Your task to perform on an android device: Toggle the flashlight Image 0: 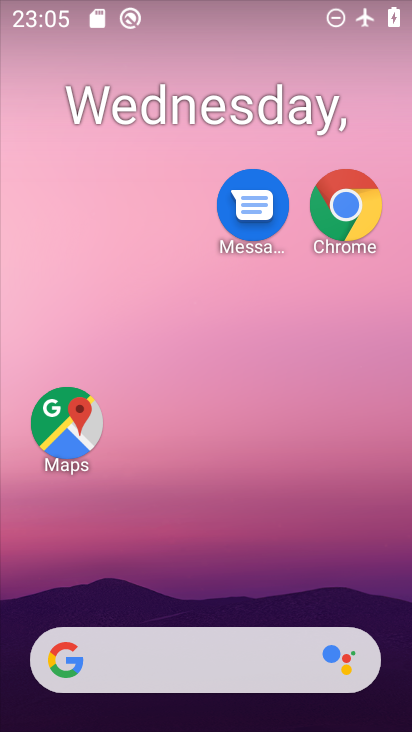
Step 0: drag from (196, 551) to (227, 29)
Your task to perform on an android device: Toggle the flashlight Image 1: 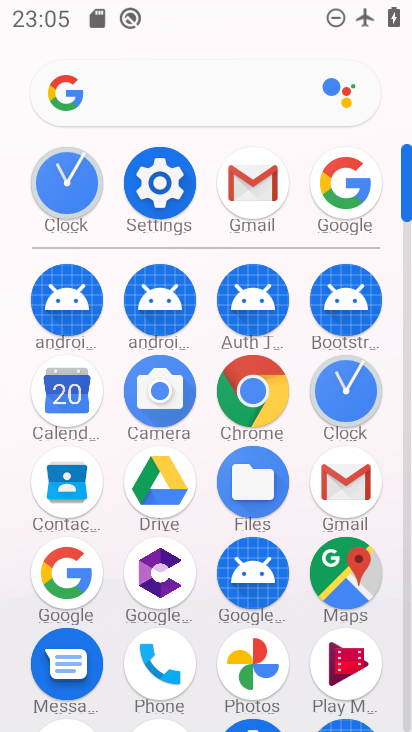
Step 1: click (140, 165)
Your task to perform on an android device: Toggle the flashlight Image 2: 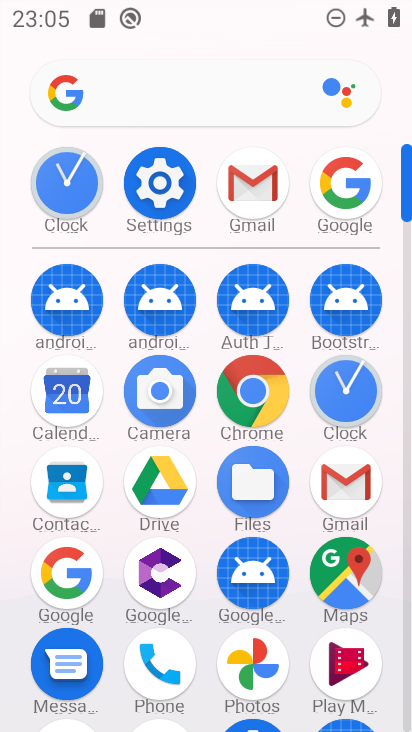
Step 2: click (140, 165)
Your task to perform on an android device: Toggle the flashlight Image 3: 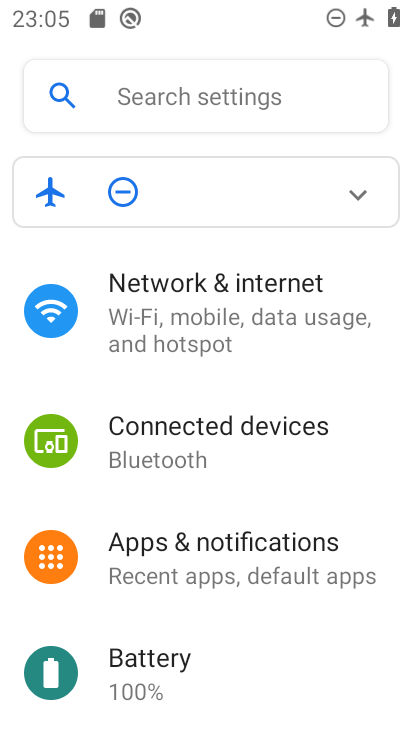
Step 3: click (205, 98)
Your task to perform on an android device: Toggle the flashlight Image 4: 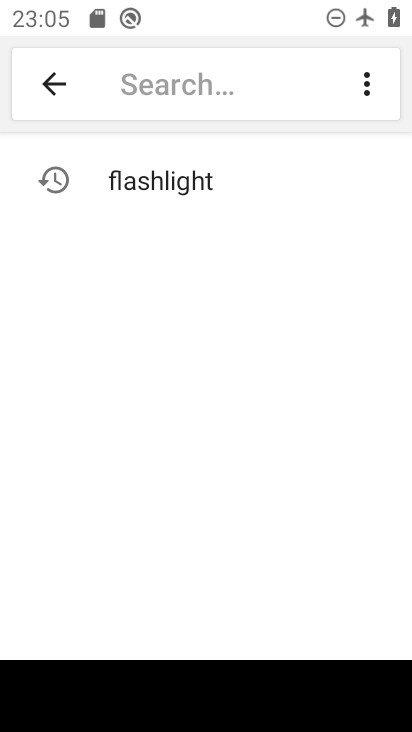
Step 4: type "flashlight"
Your task to perform on an android device: Toggle the flashlight Image 5: 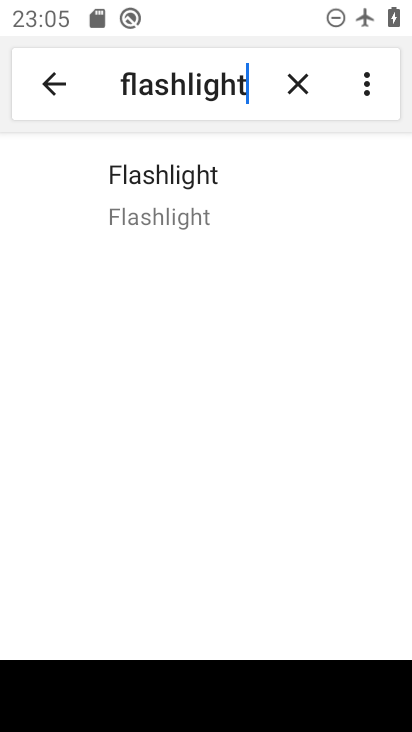
Step 5: click (228, 194)
Your task to perform on an android device: Toggle the flashlight Image 6: 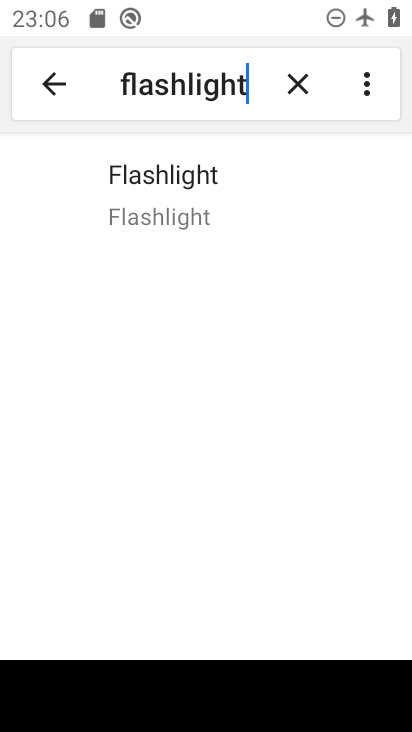
Step 6: click (263, 233)
Your task to perform on an android device: Toggle the flashlight Image 7: 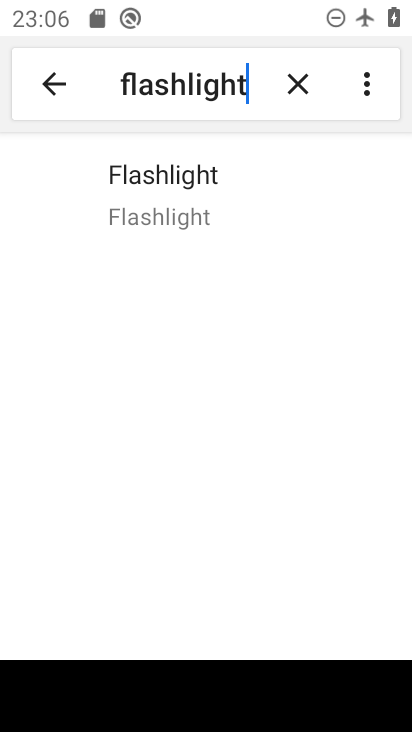
Step 7: task complete